Your task to perform on an android device: check battery use Image 0: 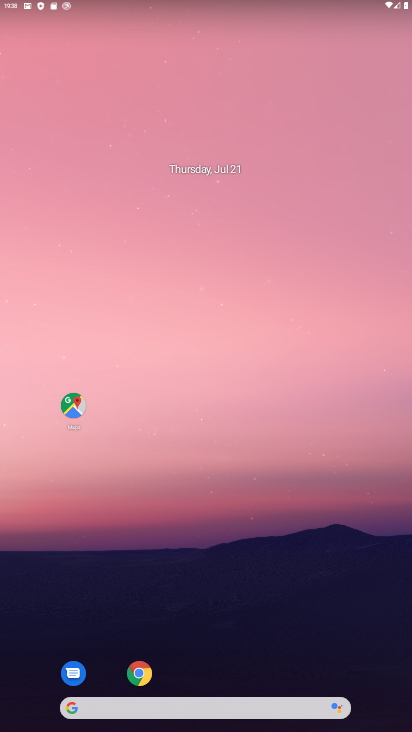
Step 0: drag from (300, 675) to (235, 69)
Your task to perform on an android device: check battery use Image 1: 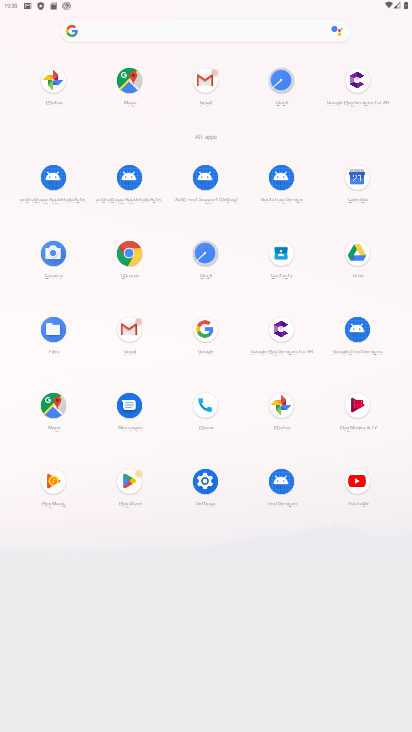
Step 1: click (208, 480)
Your task to perform on an android device: check battery use Image 2: 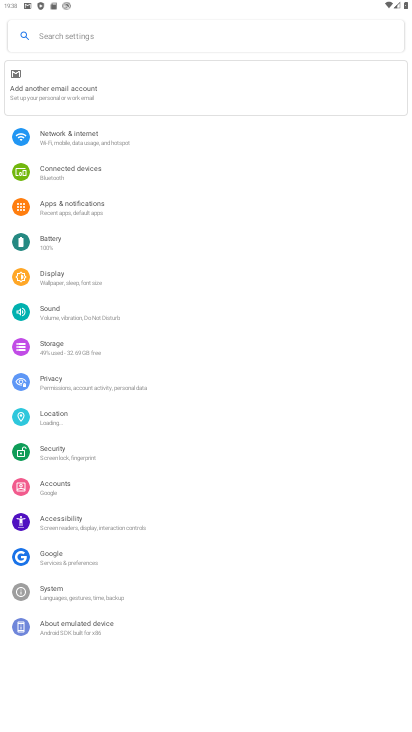
Step 2: click (50, 232)
Your task to perform on an android device: check battery use Image 3: 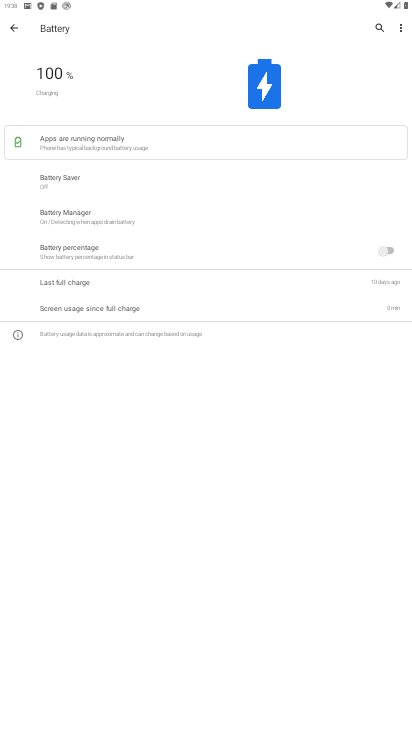
Step 3: click (404, 26)
Your task to perform on an android device: check battery use Image 4: 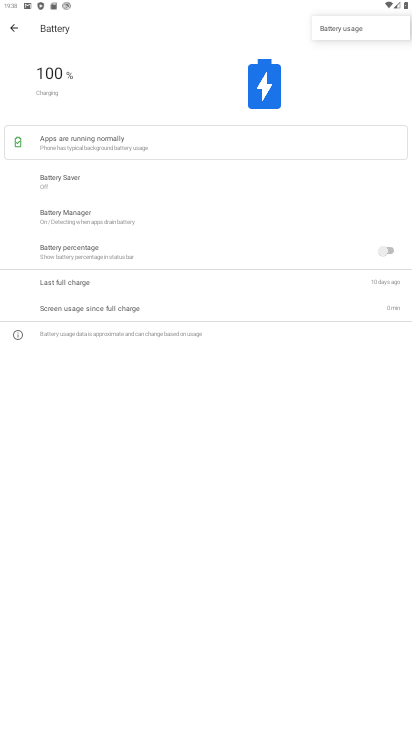
Step 4: click (371, 28)
Your task to perform on an android device: check battery use Image 5: 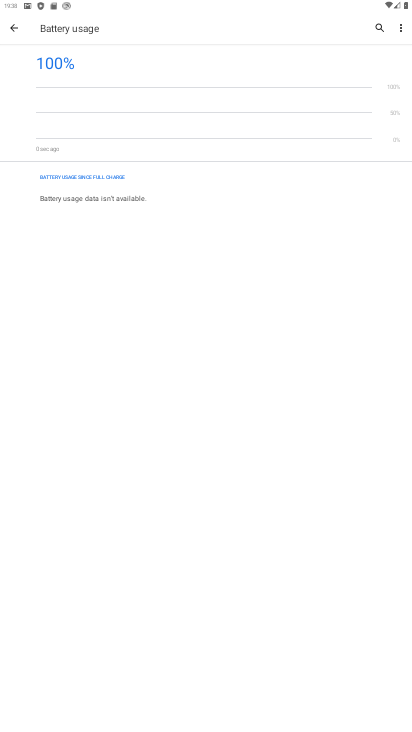
Step 5: task complete